Your task to perform on an android device: Open calendar and show me the first week of next month Image 0: 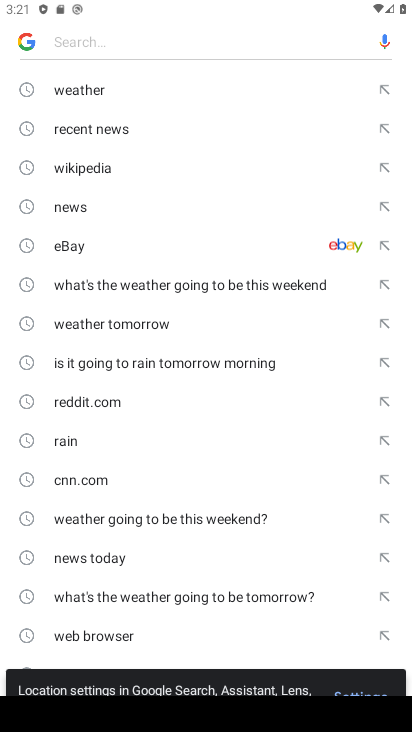
Step 0: press home button
Your task to perform on an android device: Open calendar and show me the first week of next month Image 1: 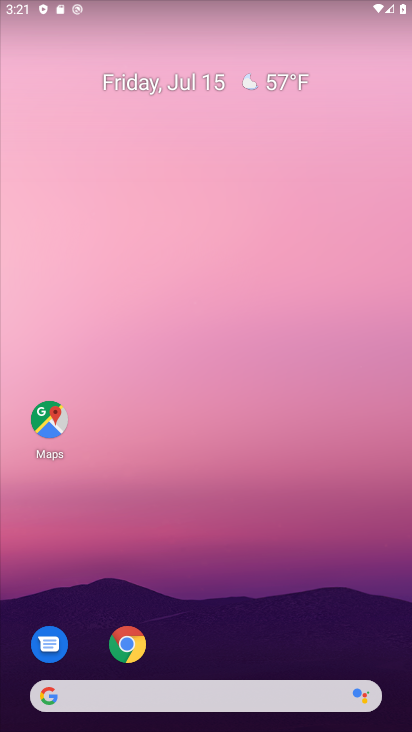
Step 1: drag from (197, 638) to (253, 232)
Your task to perform on an android device: Open calendar and show me the first week of next month Image 2: 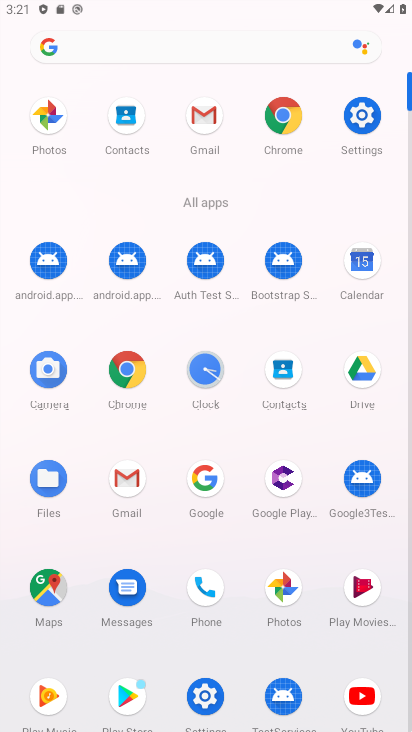
Step 2: click (350, 263)
Your task to perform on an android device: Open calendar and show me the first week of next month Image 3: 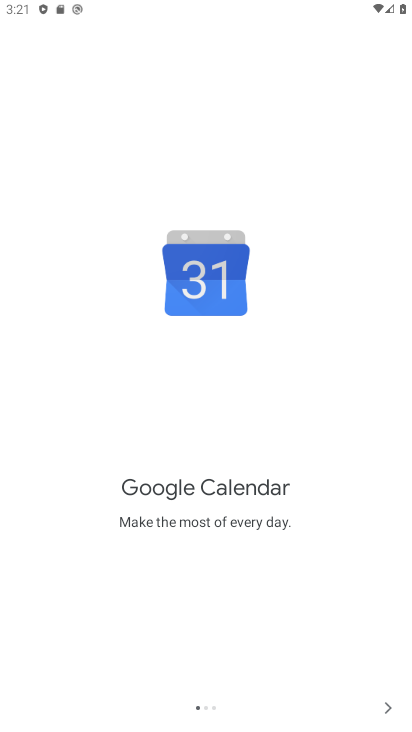
Step 3: click (389, 717)
Your task to perform on an android device: Open calendar and show me the first week of next month Image 4: 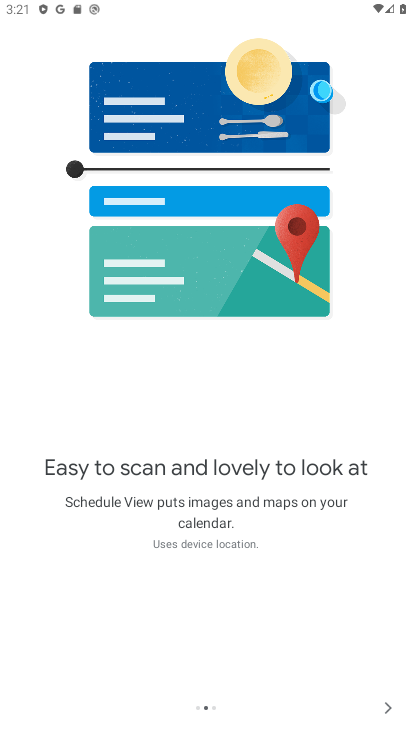
Step 4: click (389, 717)
Your task to perform on an android device: Open calendar and show me the first week of next month Image 5: 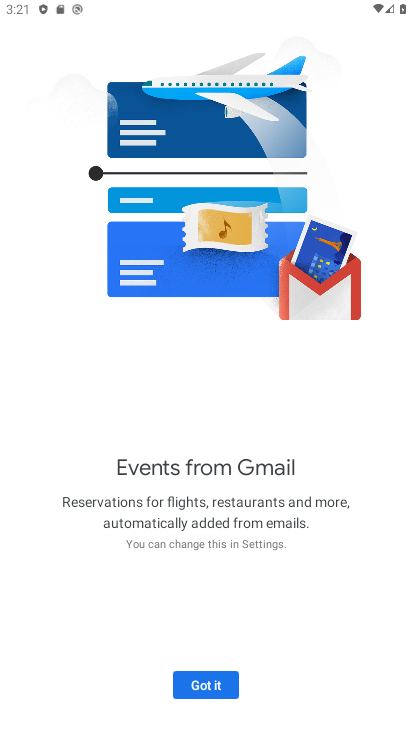
Step 5: click (216, 680)
Your task to perform on an android device: Open calendar and show me the first week of next month Image 6: 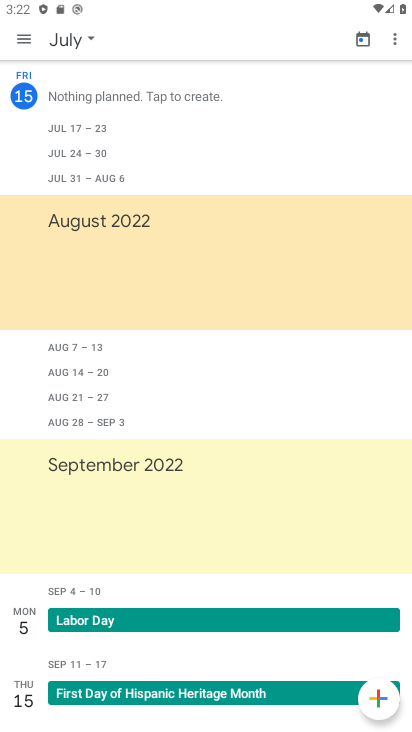
Step 6: click (58, 43)
Your task to perform on an android device: Open calendar and show me the first week of next month Image 7: 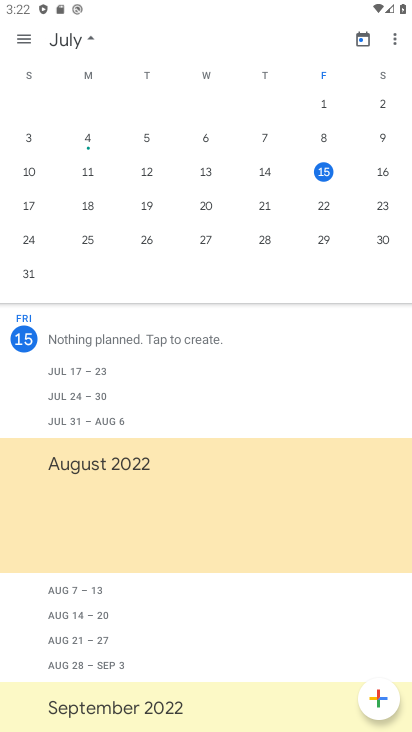
Step 7: drag from (318, 289) to (0, 278)
Your task to perform on an android device: Open calendar and show me the first week of next month Image 8: 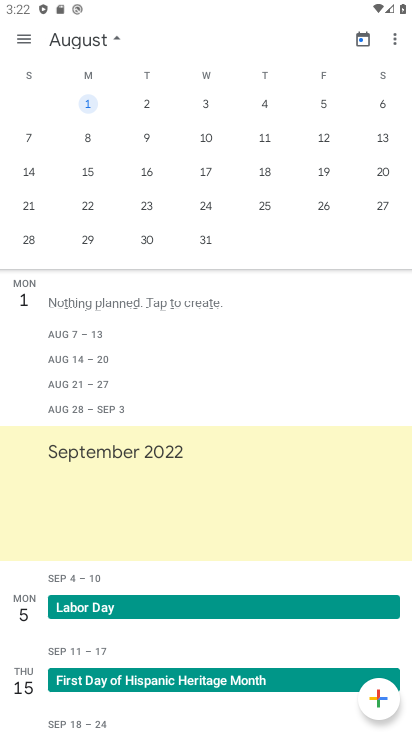
Step 8: click (27, 141)
Your task to perform on an android device: Open calendar and show me the first week of next month Image 9: 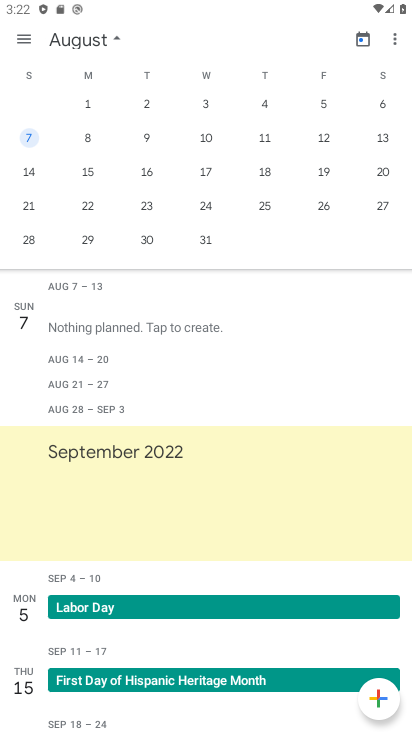
Step 9: click (40, 38)
Your task to perform on an android device: Open calendar and show me the first week of next month Image 10: 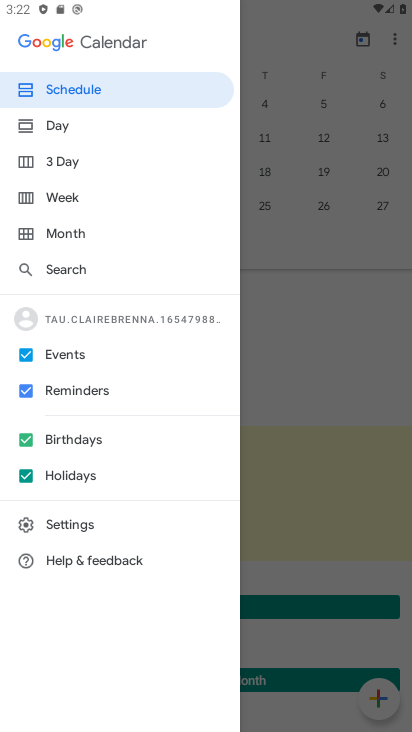
Step 10: click (81, 198)
Your task to perform on an android device: Open calendar and show me the first week of next month Image 11: 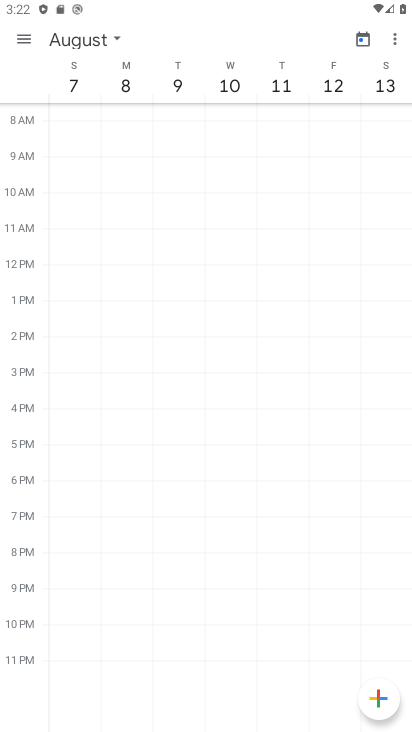
Step 11: task complete